Your task to perform on an android device: Go to wifi settings Image 0: 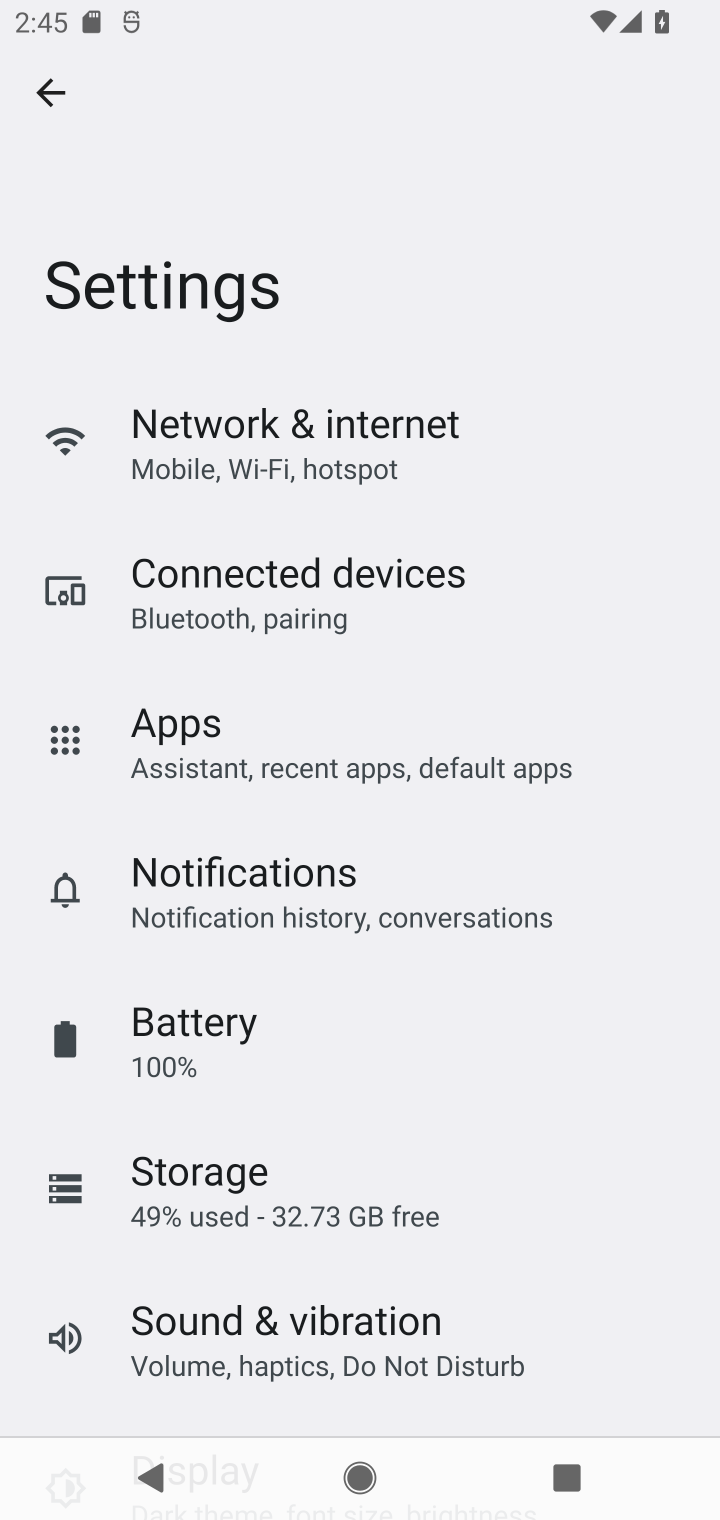
Step 0: press home button
Your task to perform on an android device: Go to wifi settings Image 1: 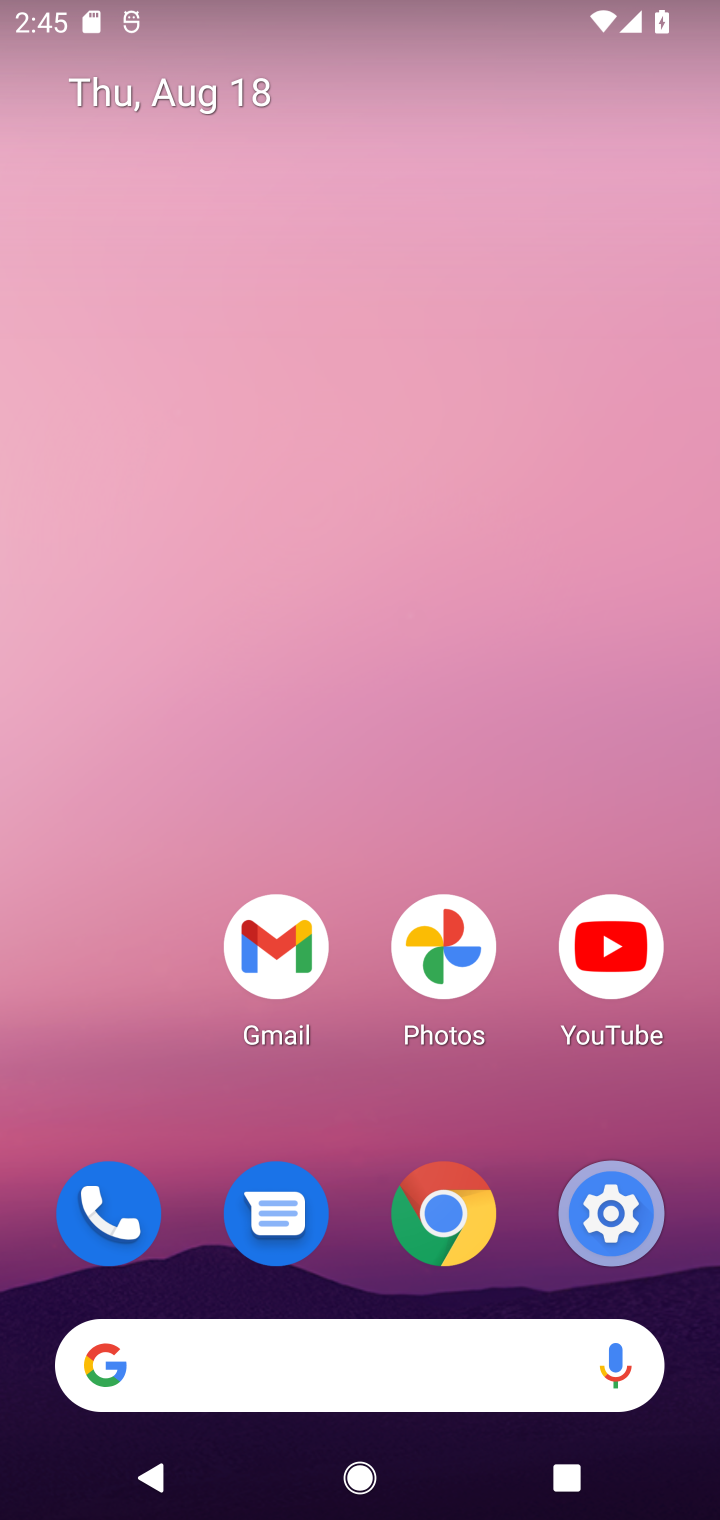
Step 1: click (617, 1207)
Your task to perform on an android device: Go to wifi settings Image 2: 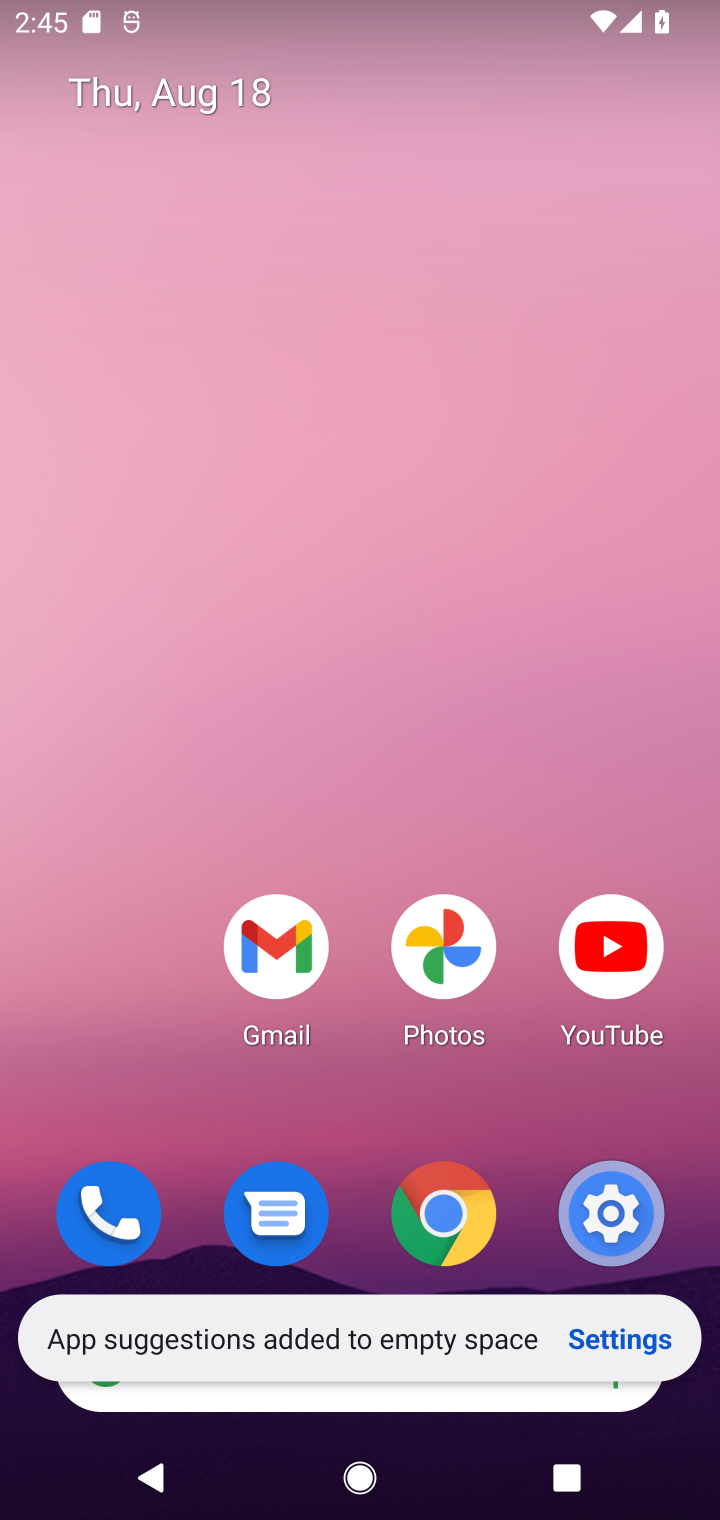
Step 2: click (617, 1208)
Your task to perform on an android device: Go to wifi settings Image 3: 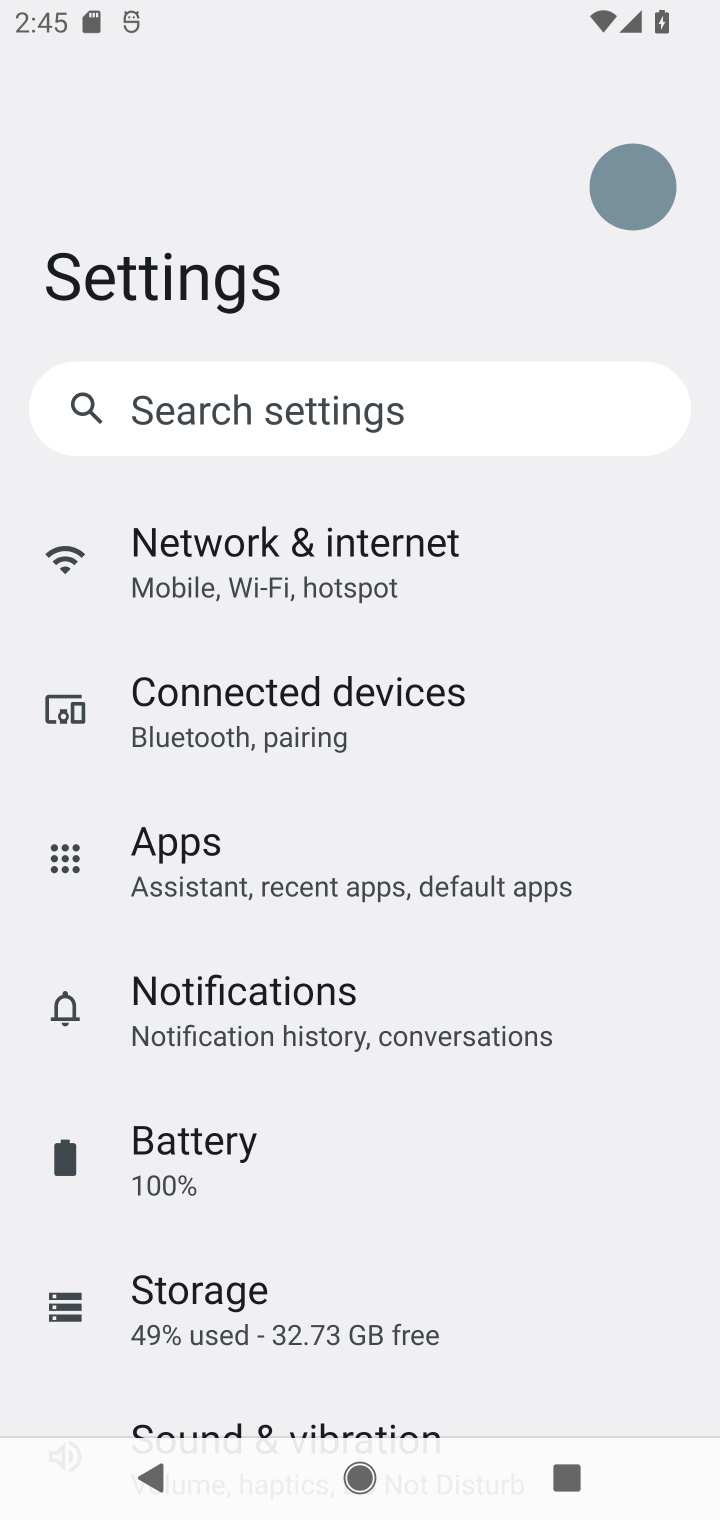
Step 3: click (337, 577)
Your task to perform on an android device: Go to wifi settings Image 4: 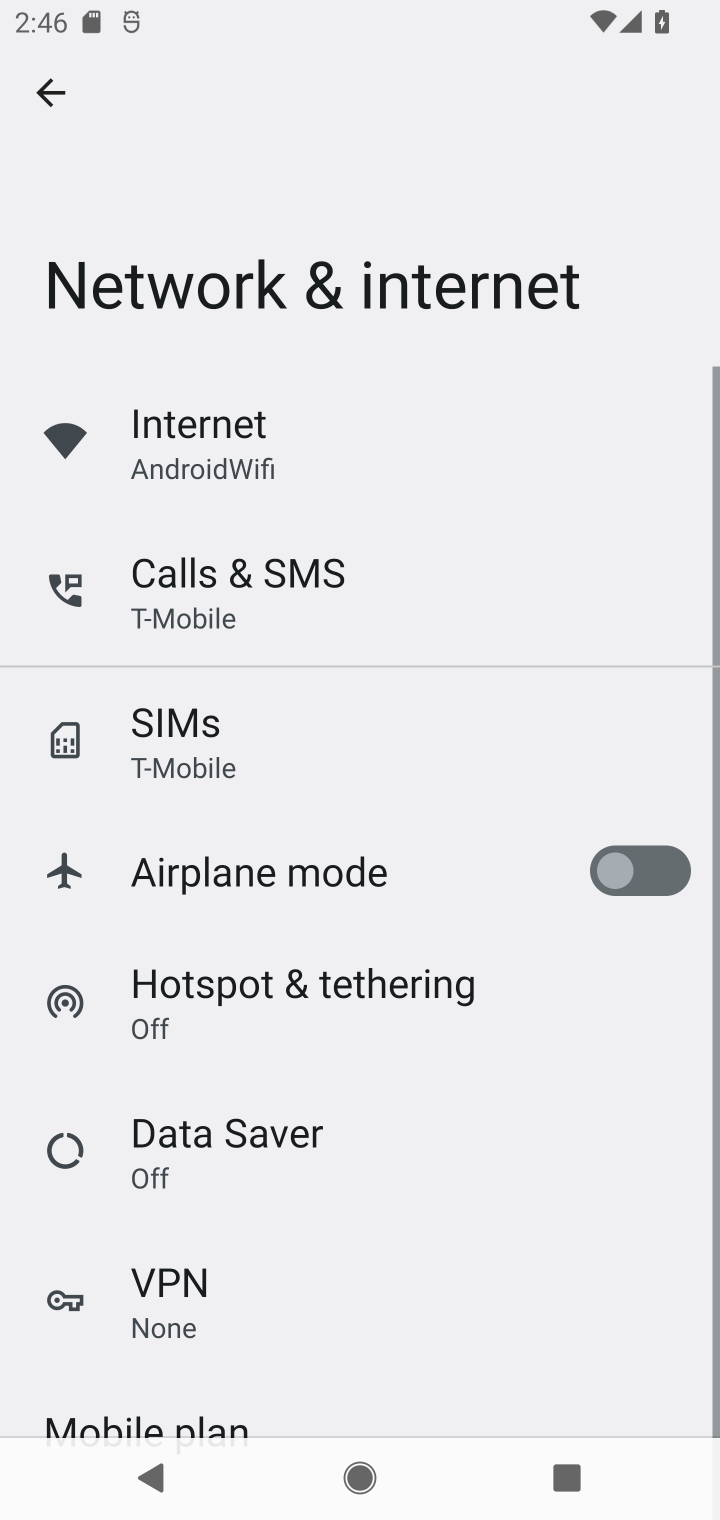
Step 4: click (178, 453)
Your task to perform on an android device: Go to wifi settings Image 5: 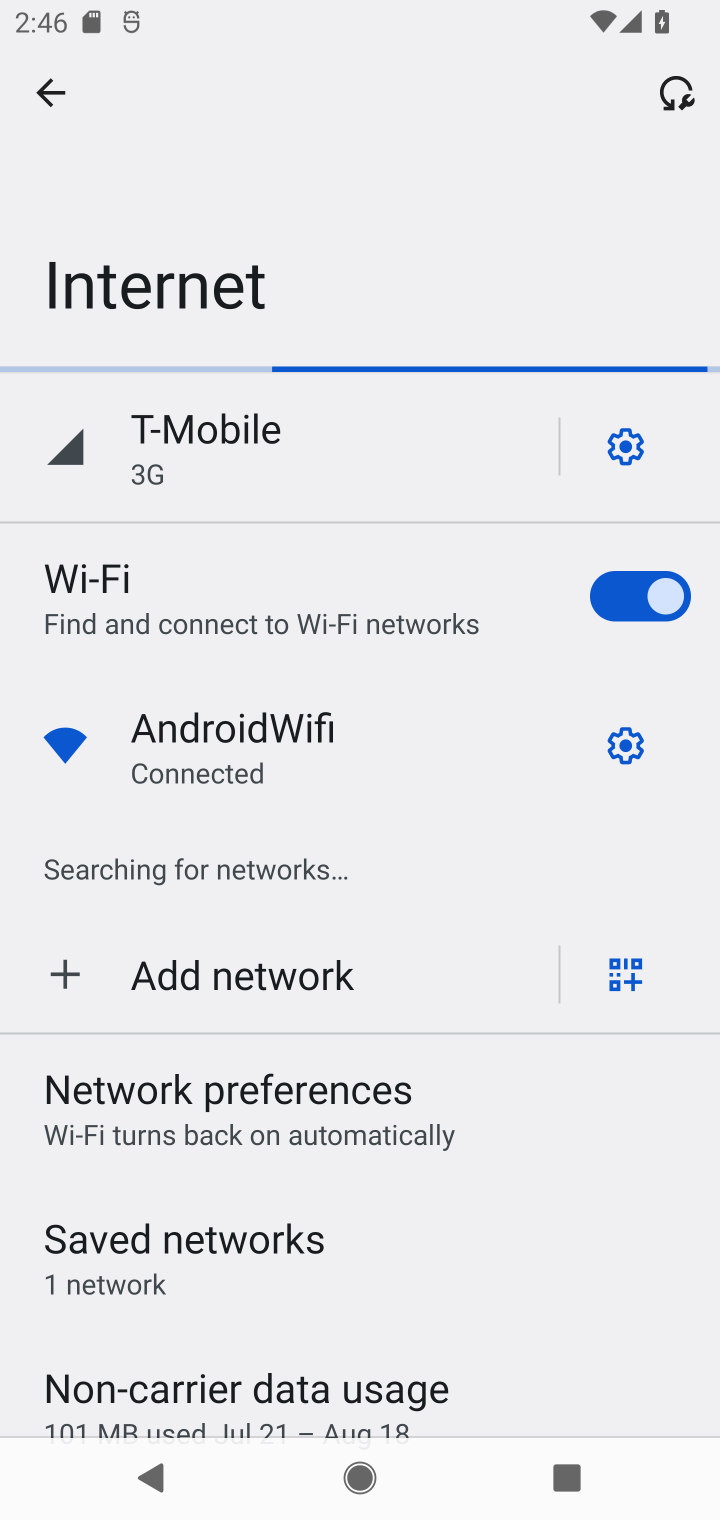
Step 5: task complete